Your task to perform on an android device: open device folders in google photos Image 0: 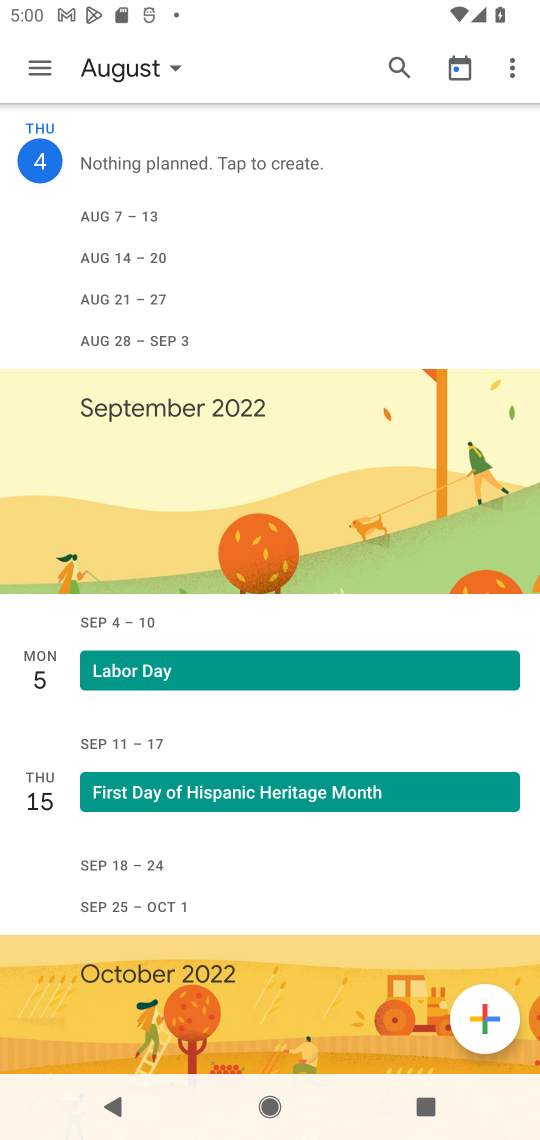
Step 0: press home button
Your task to perform on an android device: open device folders in google photos Image 1: 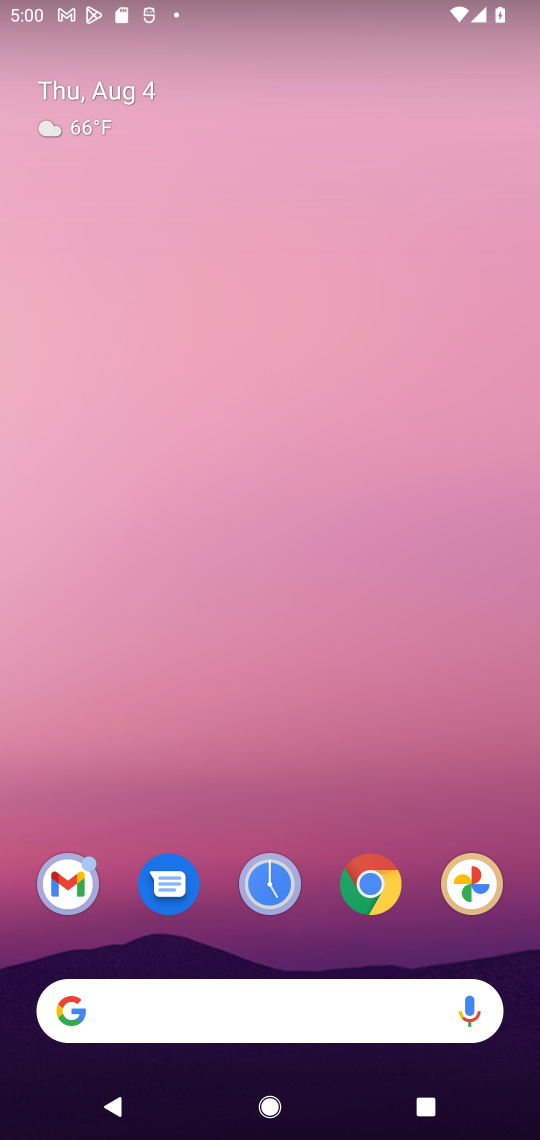
Step 1: click (477, 880)
Your task to perform on an android device: open device folders in google photos Image 2: 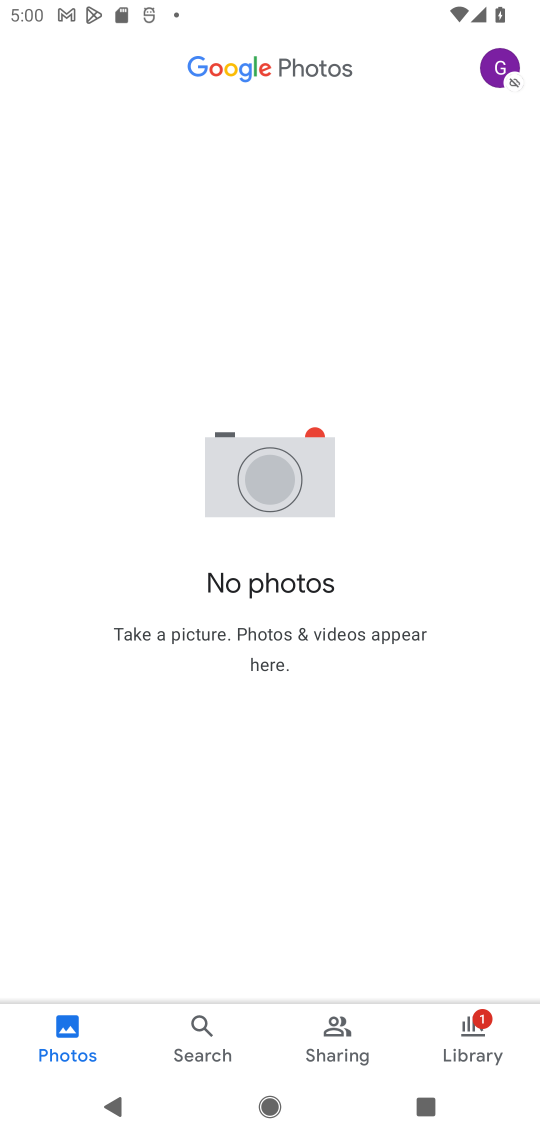
Step 2: task complete